Your task to perform on an android device: change the upload size in google photos Image 0: 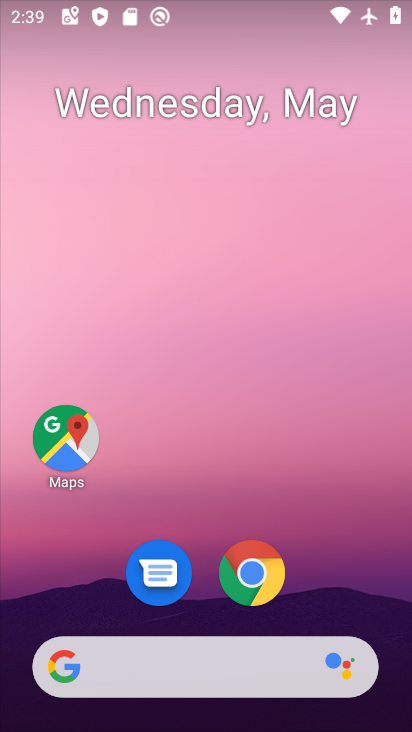
Step 0: drag from (319, 598) to (325, 84)
Your task to perform on an android device: change the upload size in google photos Image 1: 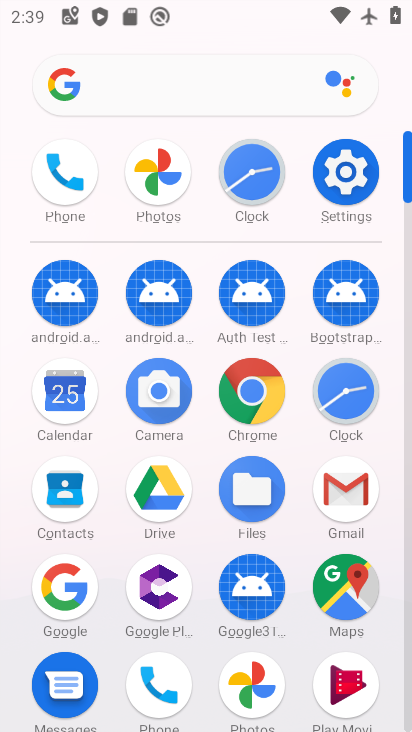
Step 1: click (243, 679)
Your task to perform on an android device: change the upload size in google photos Image 2: 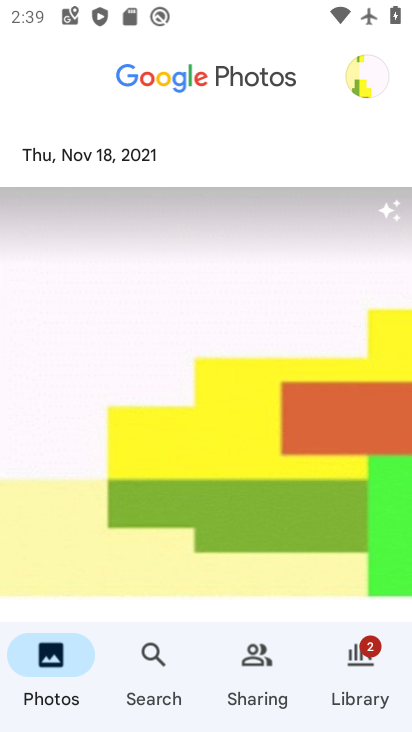
Step 2: click (366, 76)
Your task to perform on an android device: change the upload size in google photos Image 3: 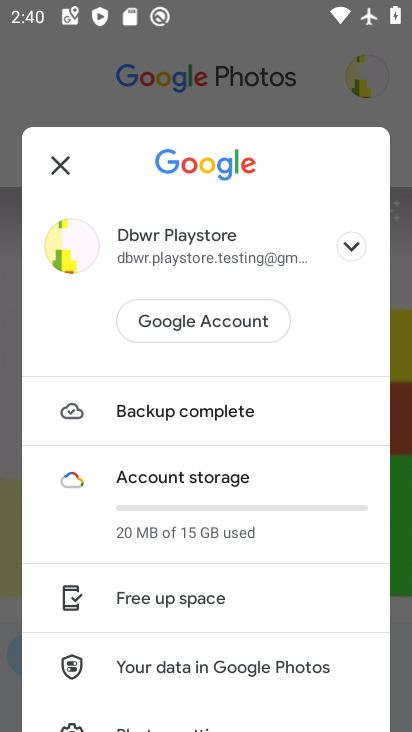
Step 3: drag from (205, 558) to (246, 220)
Your task to perform on an android device: change the upload size in google photos Image 4: 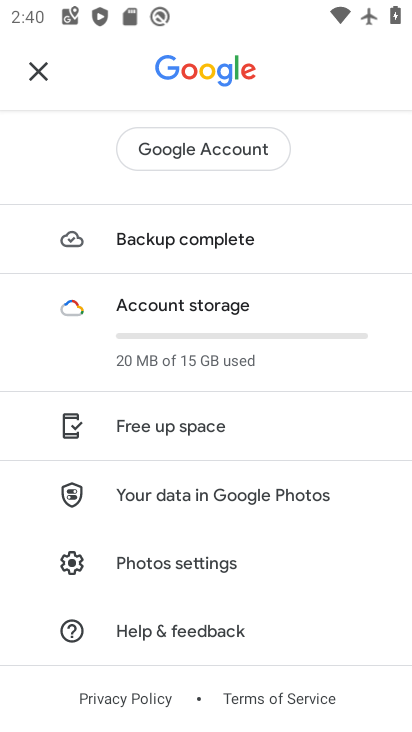
Step 4: click (227, 562)
Your task to perform on an android device: change the upload size in google photos Image 5: 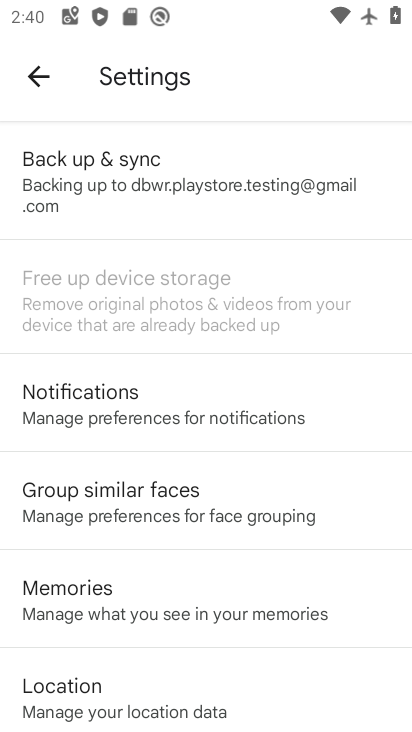
Step 5: click (140, 175)
Your task to perform on an android device: change the upload size in google photos Image 6: 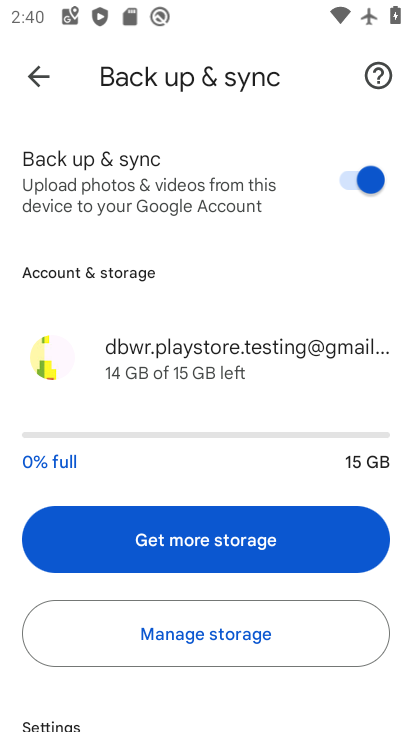
Step 6: drag from (168, 657) to (276, 206)
Your task to perform on an android device: change the upload size in google photos Image 7: 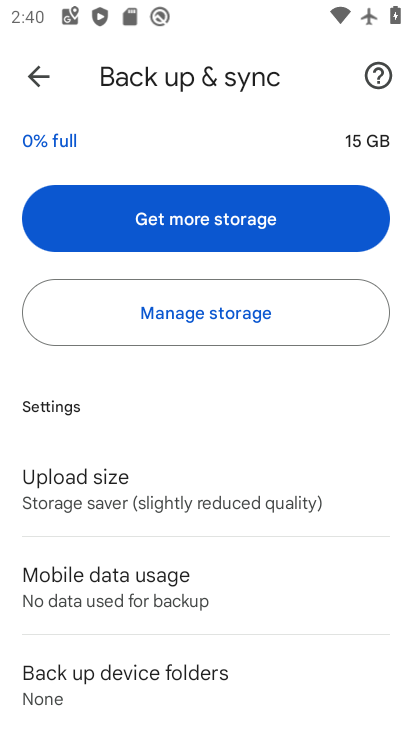
Step 7: click (227, 501)
Your task to perform on an android device: change the upload size in google photos Image 8: 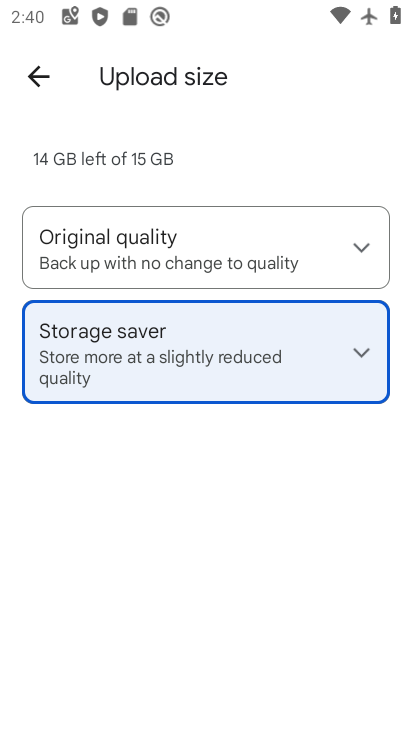
Step 8: click (176, 246)
Your task to perform on an android device: change the upload size in google photos Image 9: 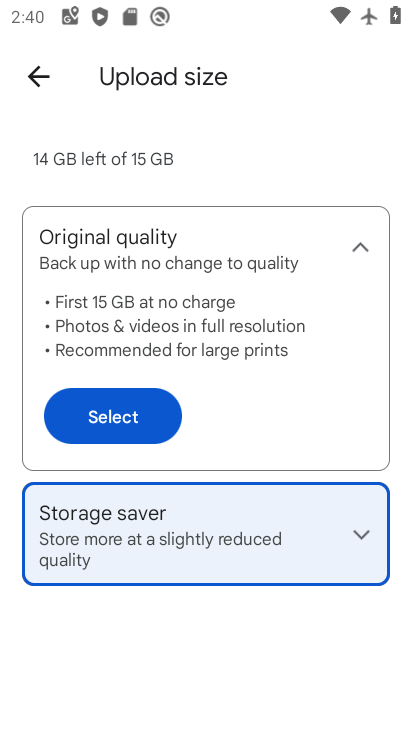
Step 9: click (95, 421)
Your task to perform on an android device: change the upload size in google photos Image 10: 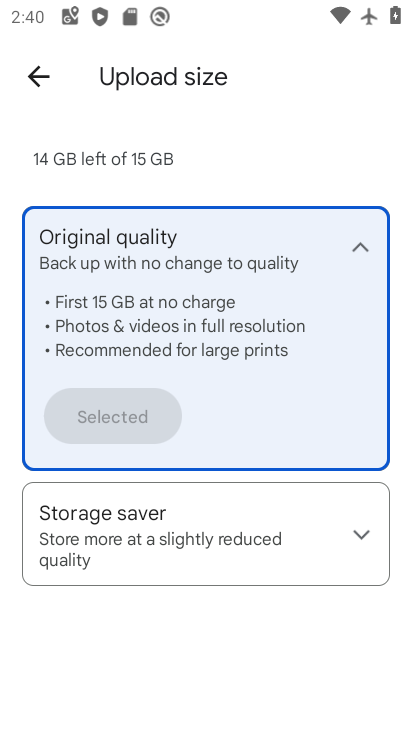
Step 10: task complete